Your task to perform on an android device: turn on translation in the chrome app Image 0: 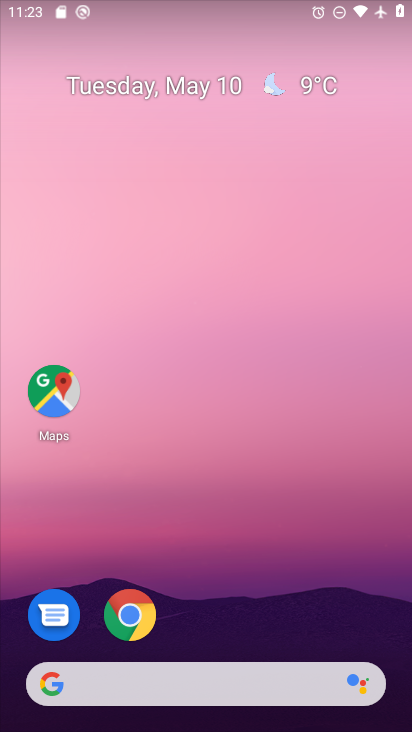
Step 0: click (126, 614)
Your task to perform on an android device: turn on translation in the chrome app Image 1: 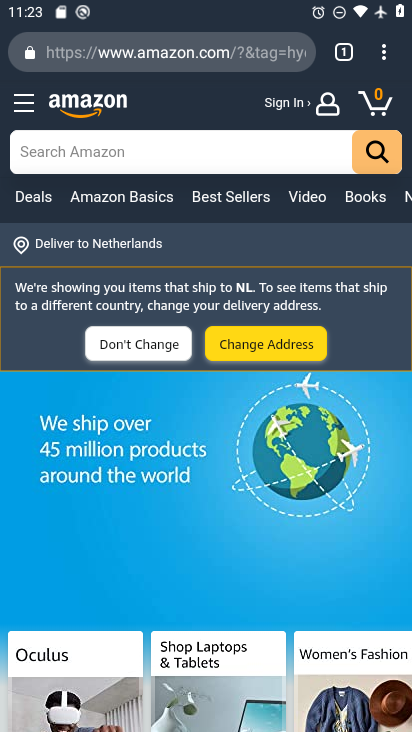
Step 1: click (387, 55)
Your task to perform on an android device: turn on translation in the chrome app Image 2: 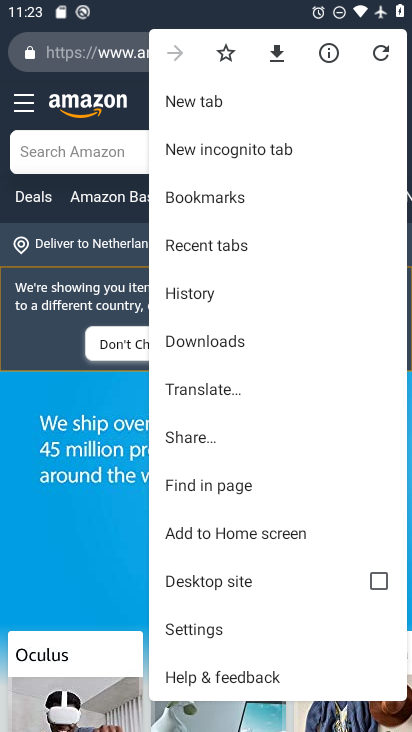
Step 2: click (199, 631)
Your task to perform on an android device: turn on translation in the chrome app Image 3: 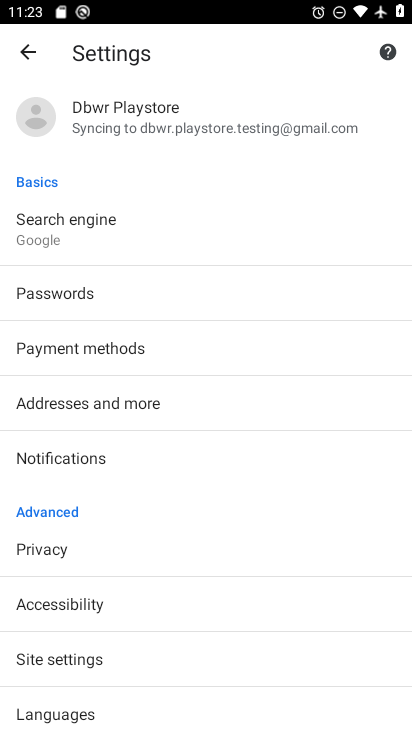
Step 3: drag from (72, 666) to (176, 303)
Your task to perform on an android device: turn on translation in the chrome app Image 4: 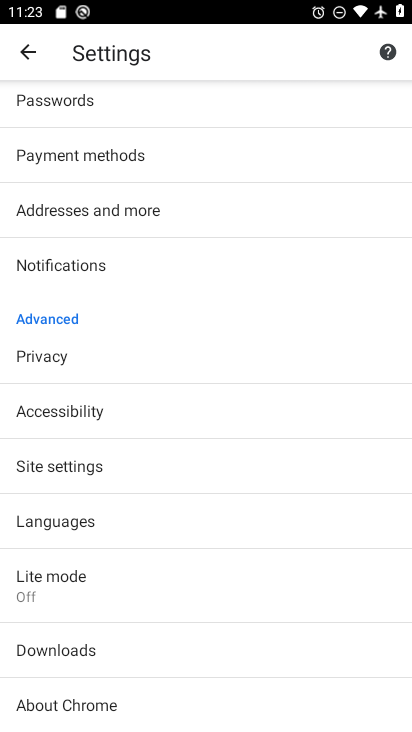
Step 4: click (44, 524)
Your task to perform on an android device: turn on translation in the chrome app Image 5: 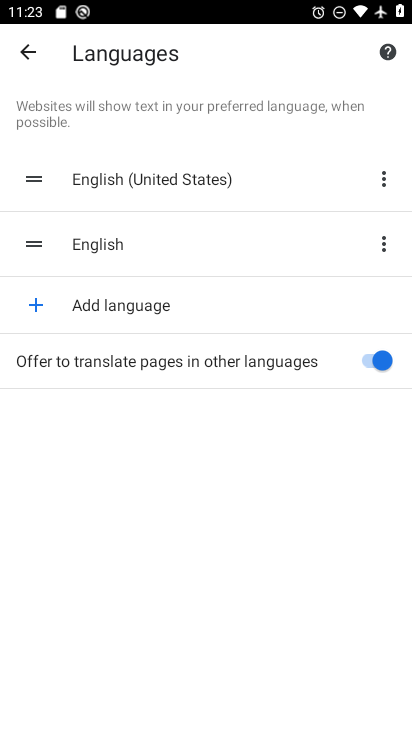
Step 5: task complete